Your task to perform on an android device: Go to settings Image 0: 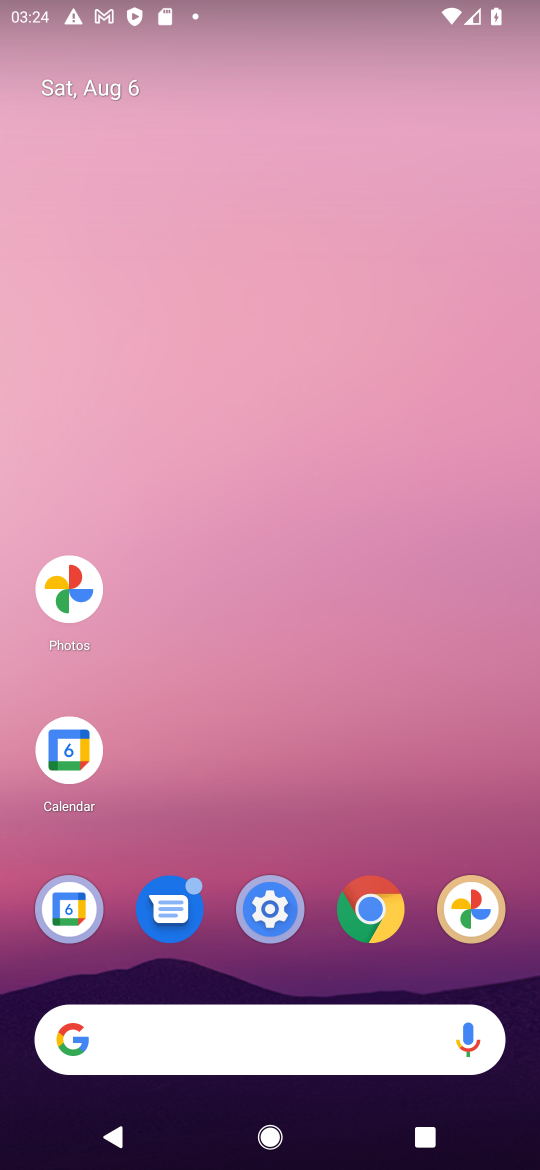
Step 0: click (262, 904)
Your task to perform on an android device: Go to settings Image 1: 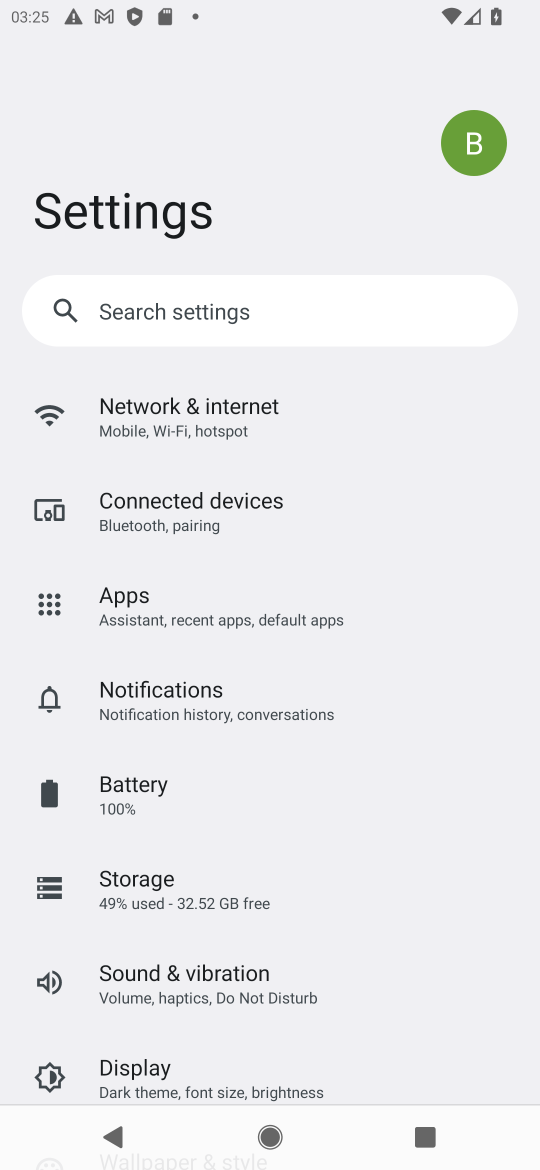
Step 1: task complete